Your task to perform on an android device: Open display settings Image 0: 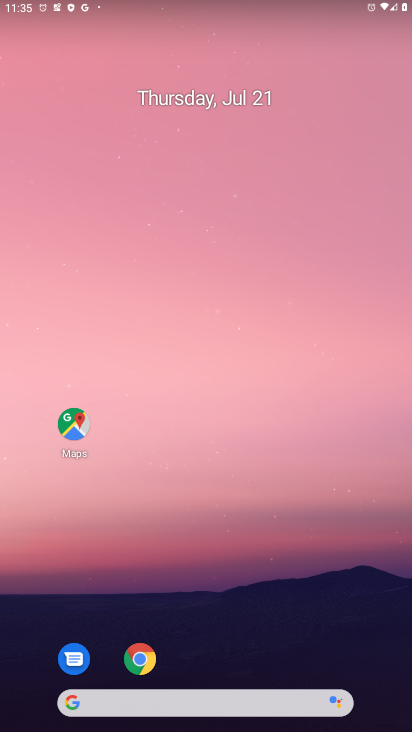
Step 0: drag from (235, 704) to (207, 165)
Your task to perform on an android device: Open display settings Image 1: 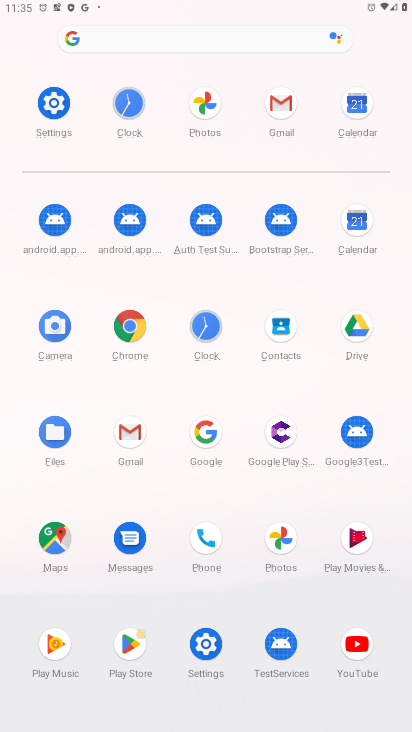
Step 1: click (206, 645)
Your task to perform on an android device: Open display settings Image 2: 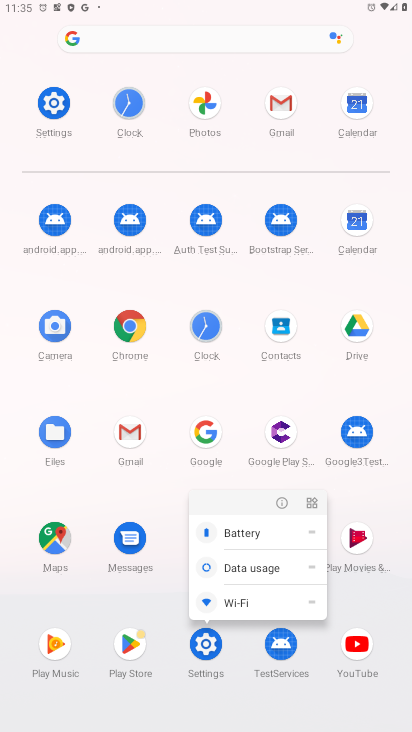
Step 2: click (206, 645)
Your task to perform on an android device: Open display settings Image 3: 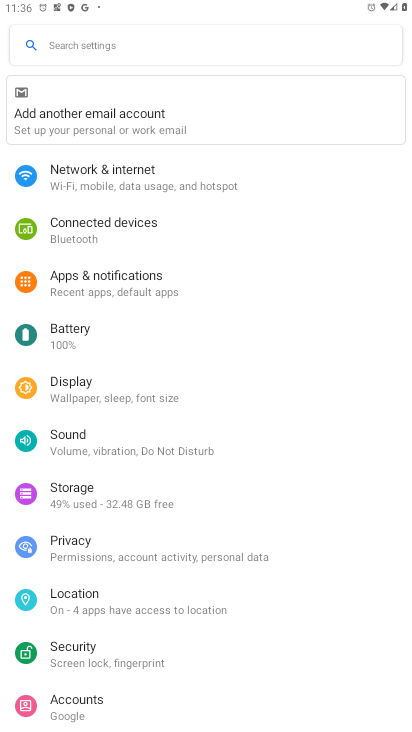
Step 3: click (62, 386)
Your task to perform on an android device: Open display settings Image 4: 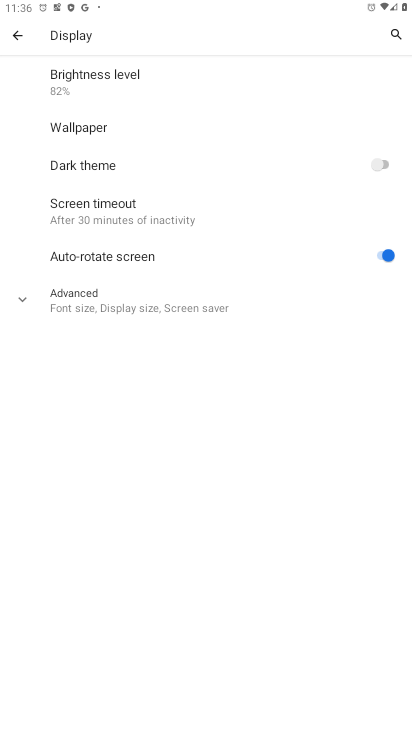
Step 4: task complete